Your task to perform on an android device: What's on my calendar tomorrow? Image 0: 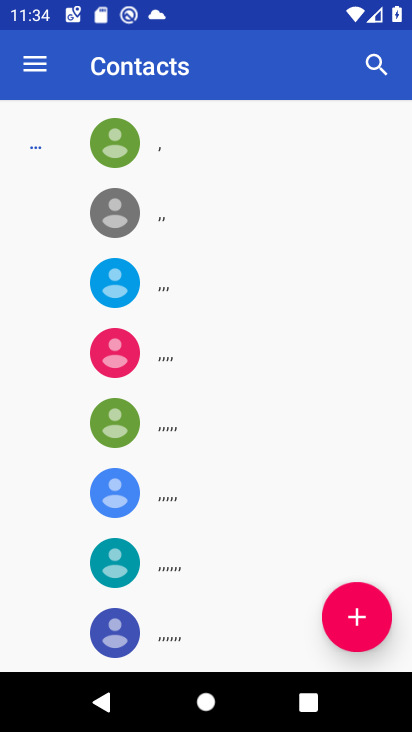
Step 0: press home button
Your task to perform on an android device: What's on my calendar tomorrow? Image 1: 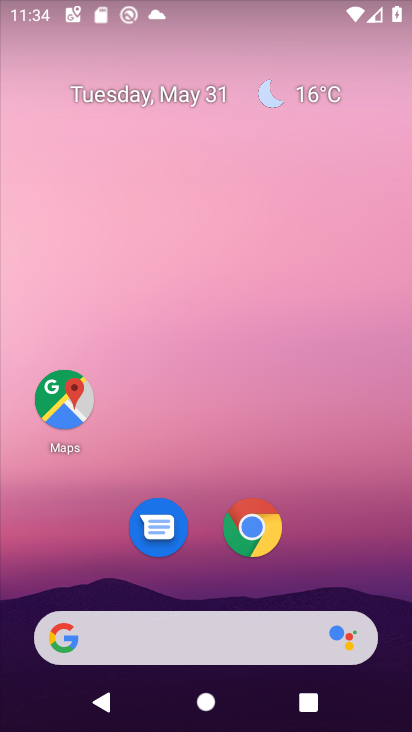
Step 1: drag from (351, 583) to (367, 4)
Your task to perform on an android device: What's on my calendar tomorrow? Image 2: 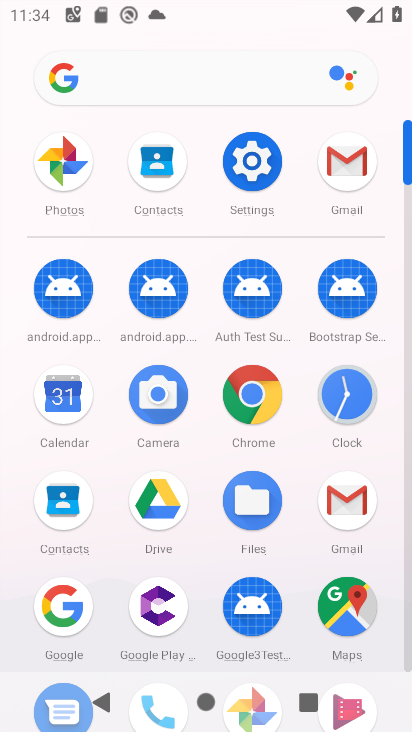
Step 2: click (50, 396)
Your task to perform on an android device: What's on my calendar tomorrow? Image 3: 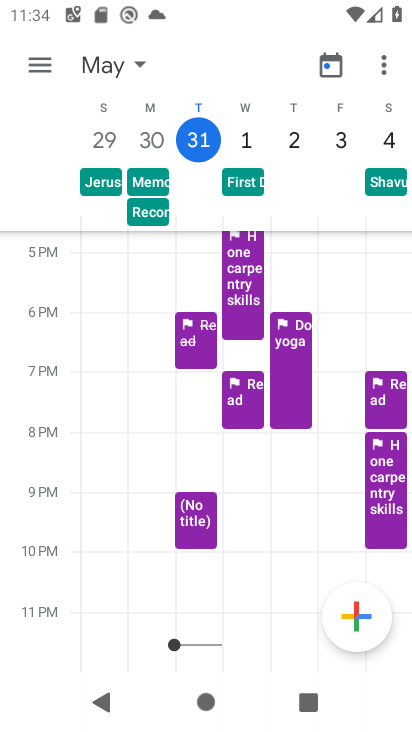
Step 3: click (37, 63)
Your task to perform on an android device: What's on my calendar tomorrow? Image 4: 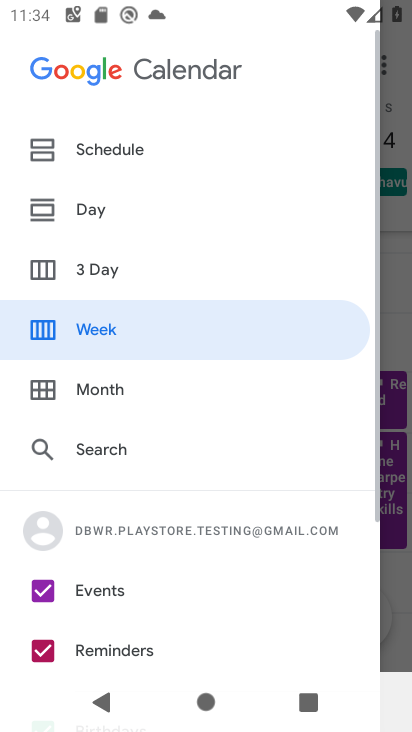
Step 4: click (58, 148)
Your task to perform on an android device: What's on my calendar tomorrow? Image 5: 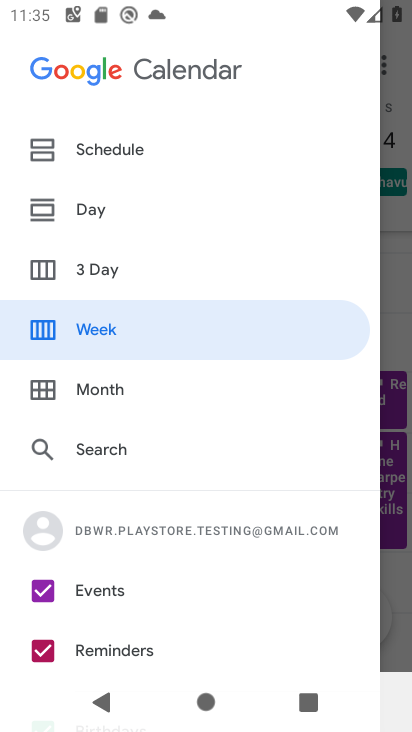
Step 5: click (94, 153)
Your task to perform on an android device: What's on my calendar tomorrow? Image 6: 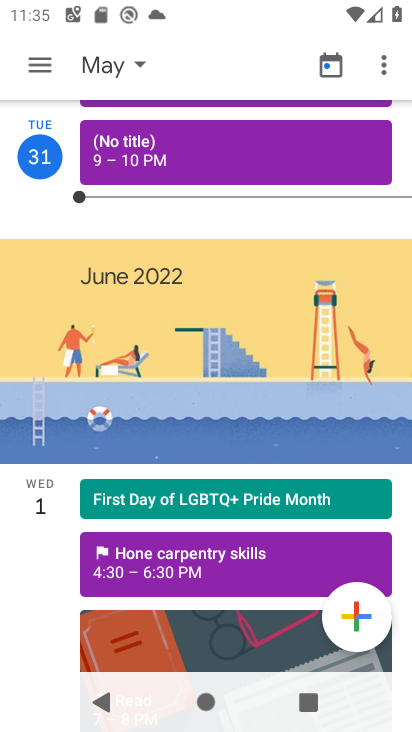
Step 6: click (174, 566)
Your task to perform on an android device: What's on my calendar tomorrow? Image 7: 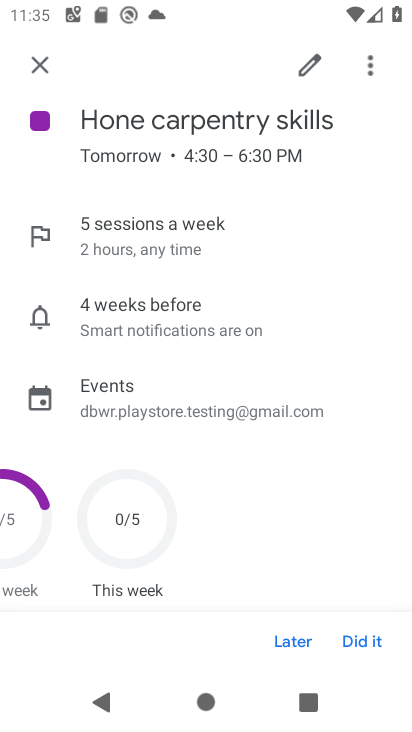
Step 7: task complete